Your task to perform on an android device: toggle airplane mode Image 0: 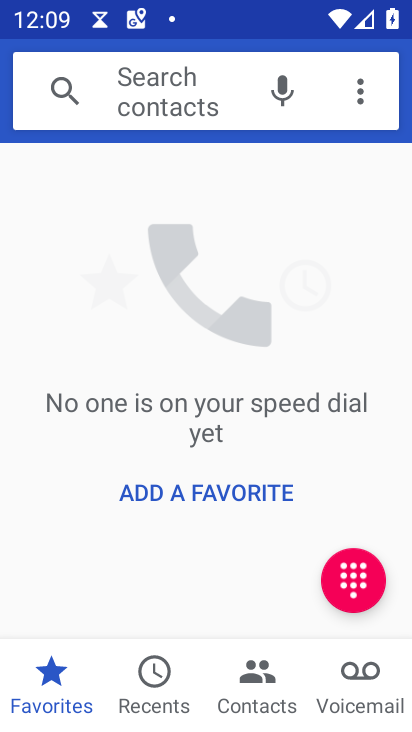
Step 0: press home button
Your task to perform on an android device: toggle airplane mode Image 1: 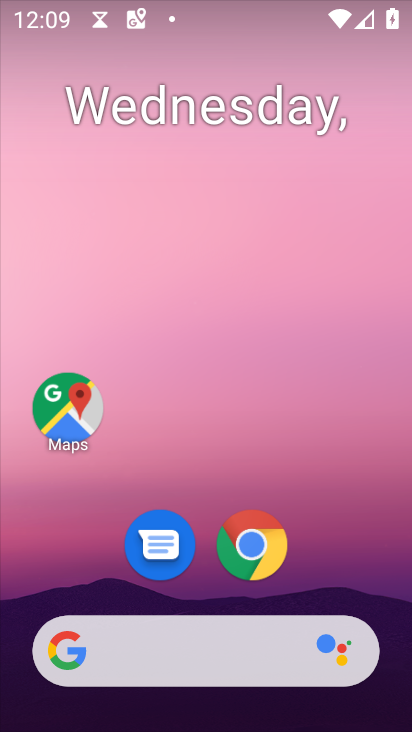
Step 1: drag from (369, 311) to (315, 85)
Your task to perform on an android device: toggle airplane mode Image 2: 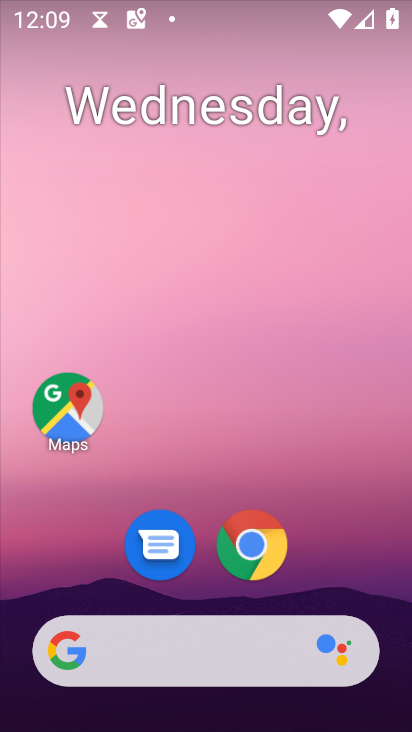
Step 2: drag from (364, 538) to (323, 107)
Your task to perform on an android device: toggle airplane mode Image 3: 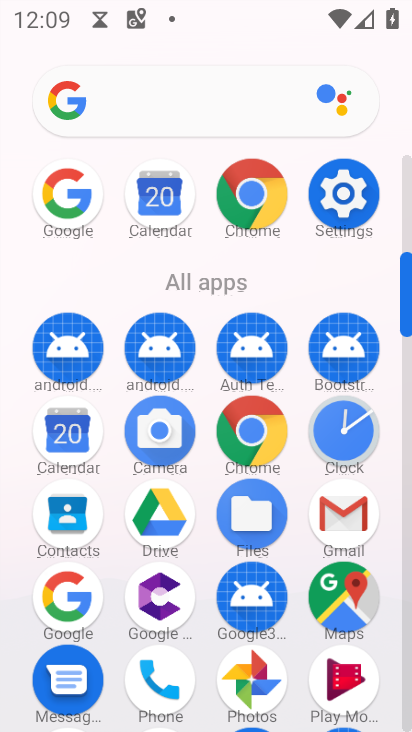
Step 3: click (355, 174)
Your task to perform on an android device: toggle airplane mode Image 4: 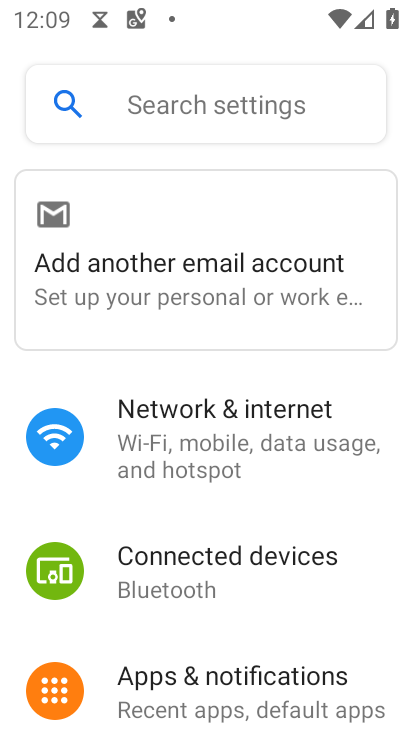
Step 4: click (286, 412)
Your task to perform on an android device: toggle airplane mode Image 5: 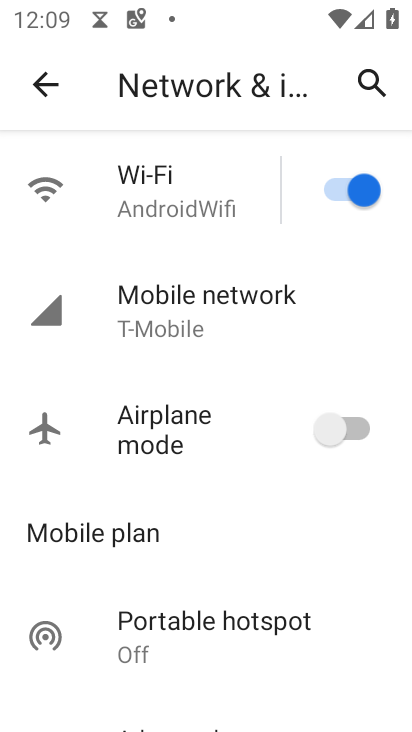
Step 5: click (355, 425)
Your task to perform on an android device: toggle airplane mode Image 6: 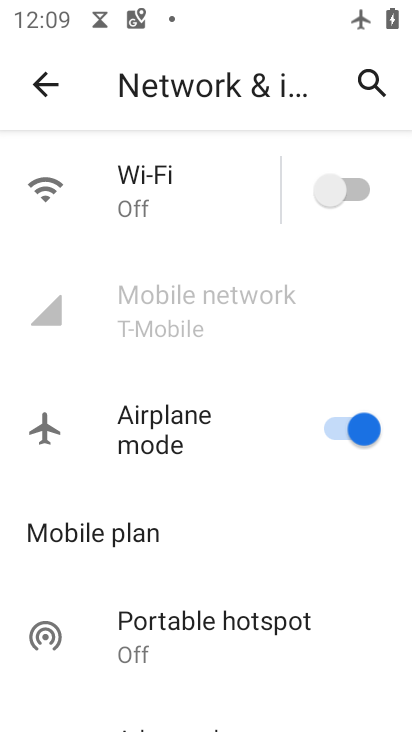
Step 6: task complete